Your task to perform on an android device: turn off notifications settings in the gmail app Image 0: 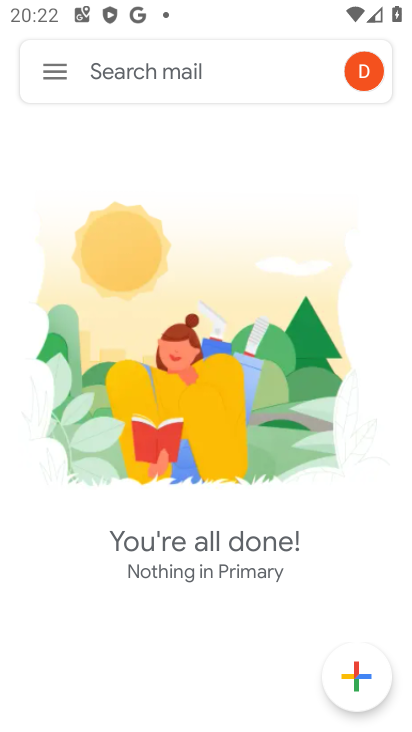
Step 0: press home button
Your task to perform on an android device: turn off notifications settings in the gmail app Image 1: 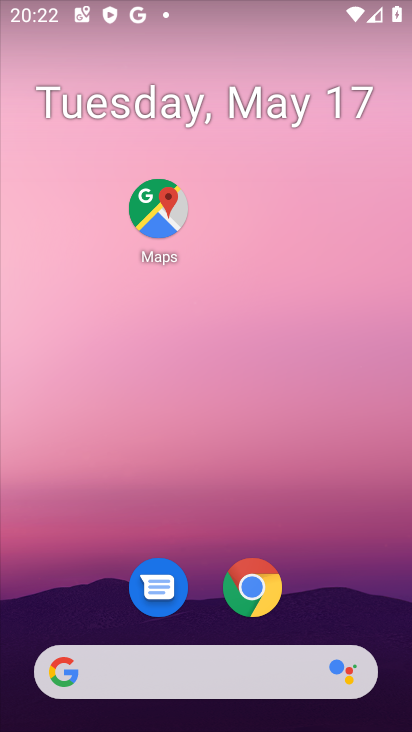
Step 1: drag from (17, 676) to (240, 177)
Your task to perform on an android device: turn off notifications settings in the gmail app Image 2: 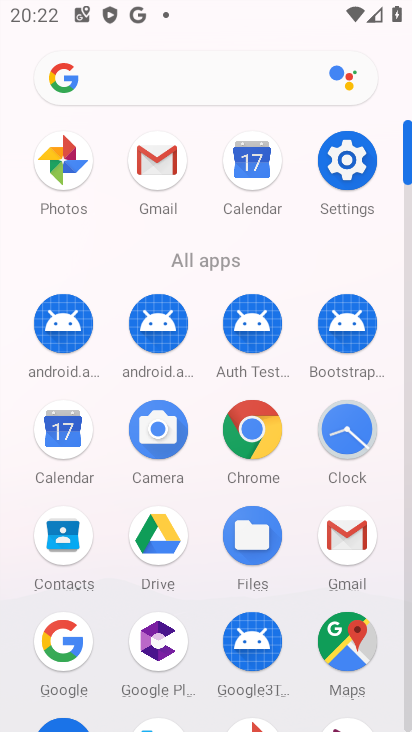
Step 2: click (155, 161)
Your task to perform on an android device: turn off notifications settings in the gmail app Image 3: 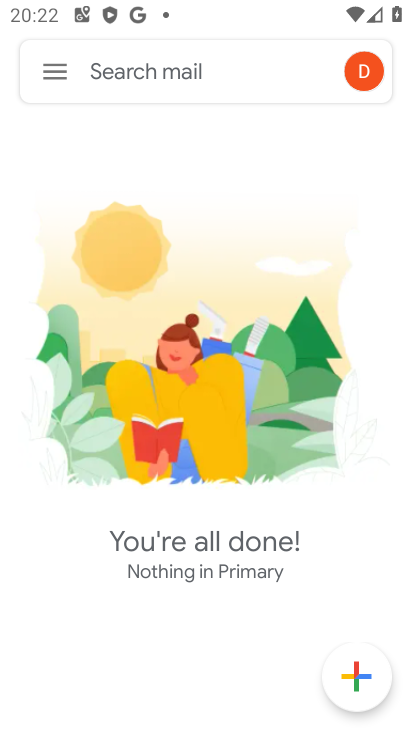
Step 3: click (61, 76)
Your task to perform on an android device: turn off notifications settings in the gmail app Image 4: 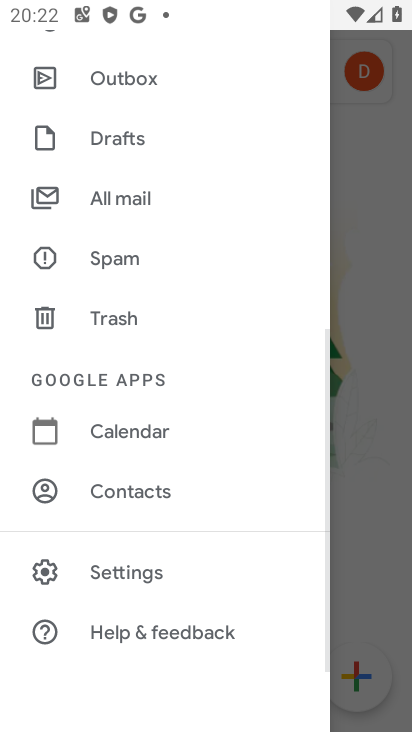
Step 4: click (106, 585)
Your task to perform on an android device: turn off notifications settings in the gmail app Image 5: 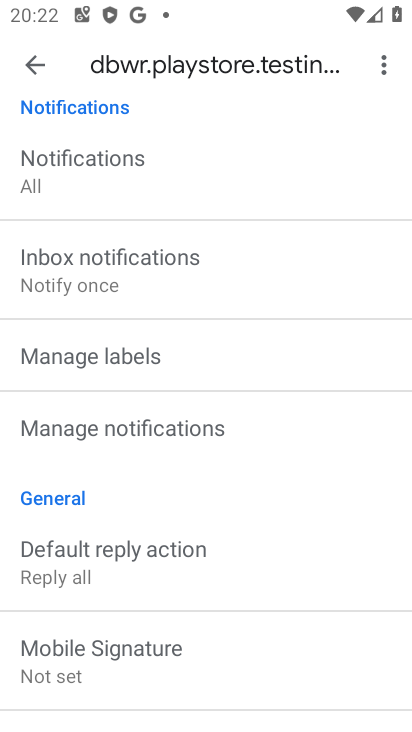
Step 5: click (119, 434)
Your task to perform on an android device: turn off notifications settings in the gmail app Image 6: 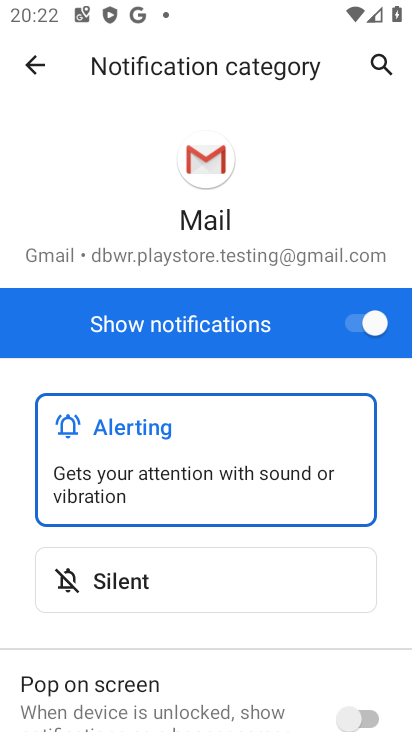
Step 6: click (379, 332)
Your task to perform on an android device: turn off notifications settings in the gmail app Image 7: 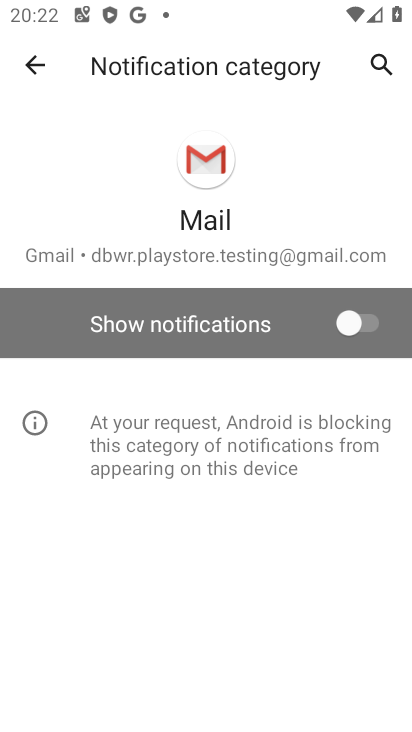
Step 7: task complete